Your task to perform on an android device: Open privacy settings Image 0: 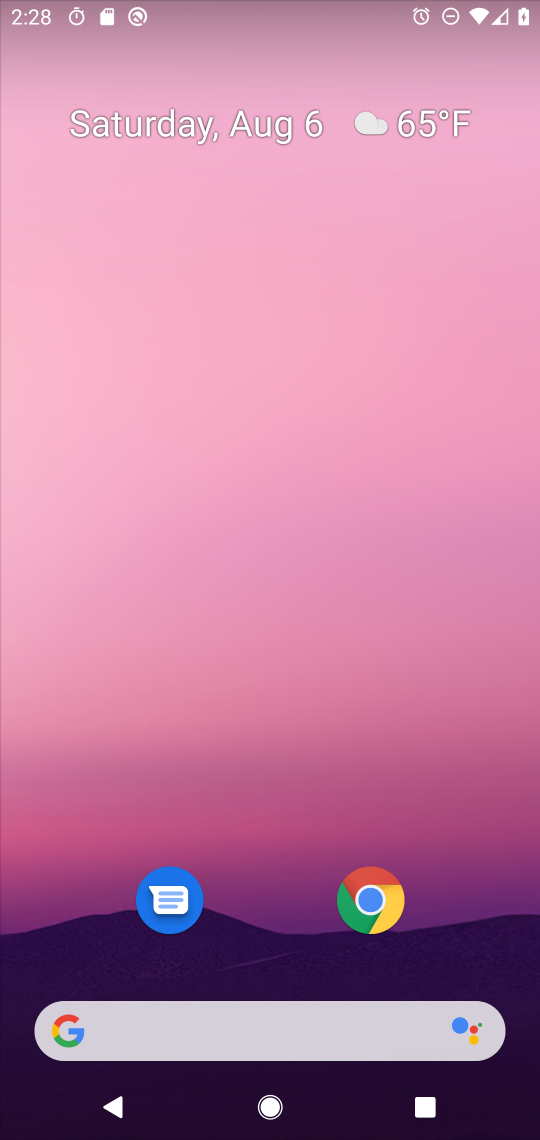
Step 0: drag from (264, 974) to (208, 145)
Your task to perform on an android device: Open privacy settings Image 1: 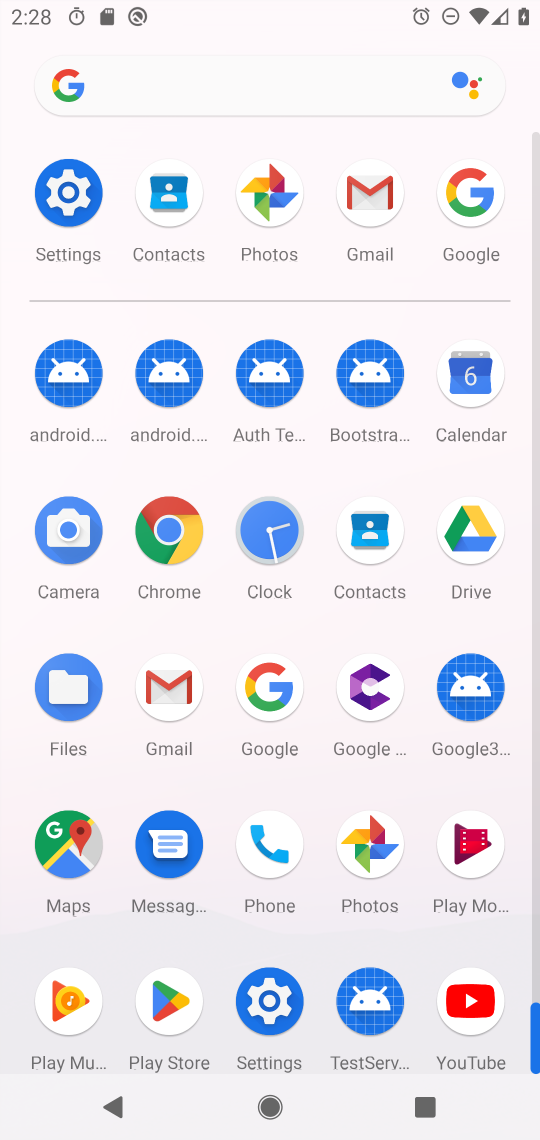
Step 1: click (73, 196)
Your task to perform on an android device: Open privacy settings Image 2: 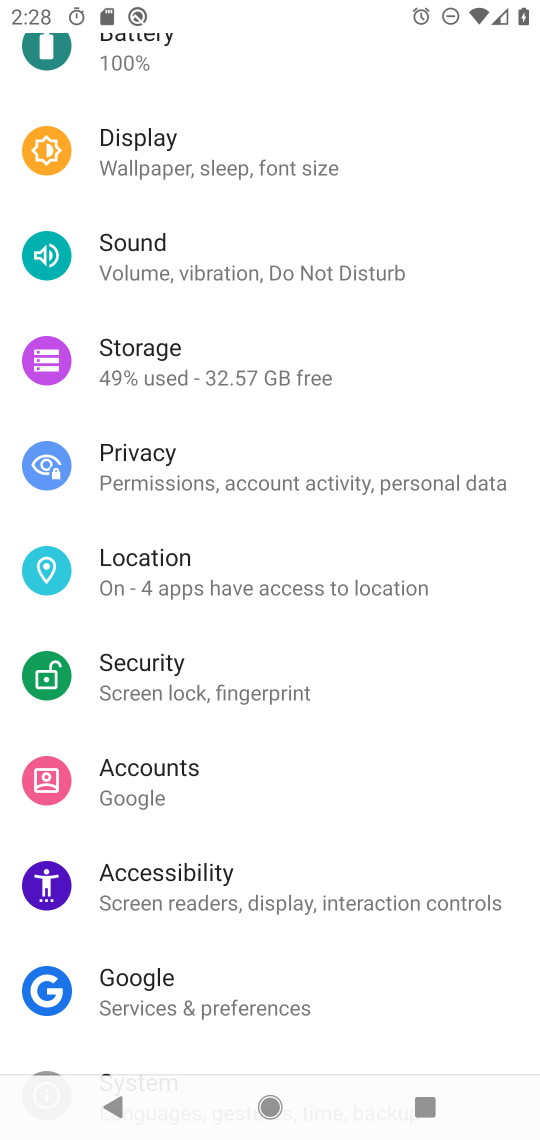
Step 2: click (134, 460)
Your task to perform on an android device: Open privacy settings Image 3: 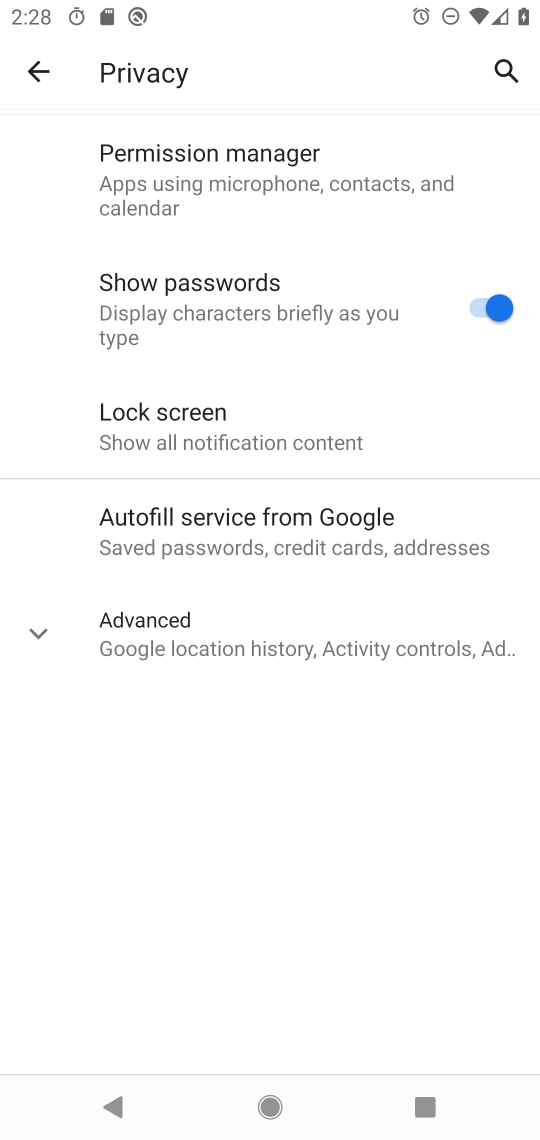
Step 3: task complete